Your task to perform on an android device: Open Google Maps Image 0: 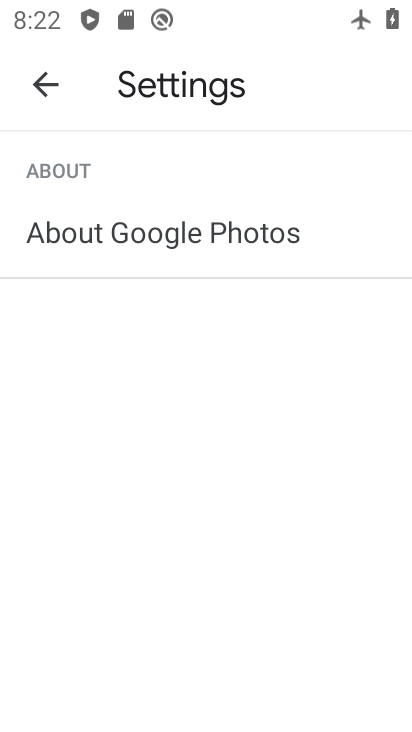
Step 0: press back button
Your task to perform on an android device: Open Google Maps Image 1: 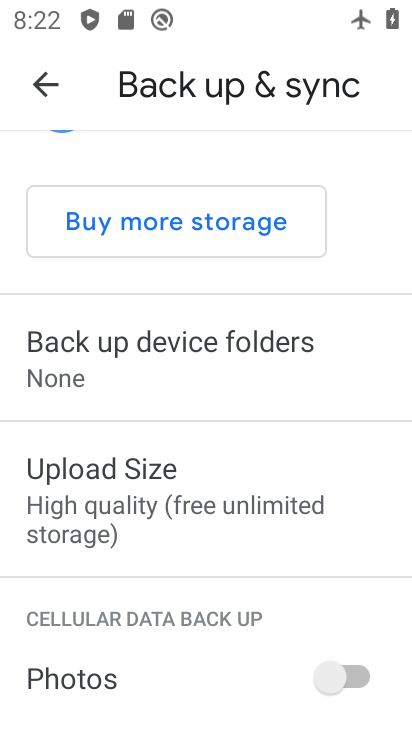
Step 1: press home button
Your task to perform on an android device: Open Google Maps Image 2: 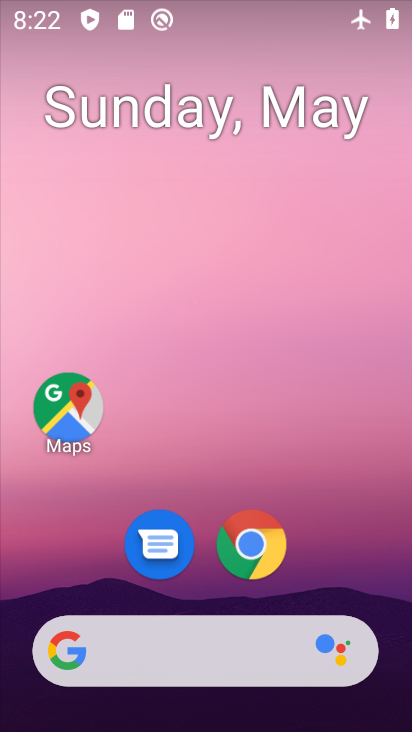
Step 2: click (67, 403)
Your task to perform on an android device: Open Google Maps Image 3: 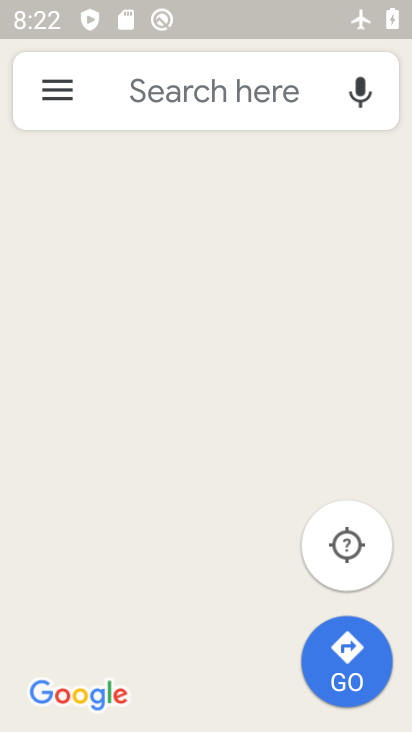
Step 3: task complete